Your task to perform on an android device: Open network settings Image 0: 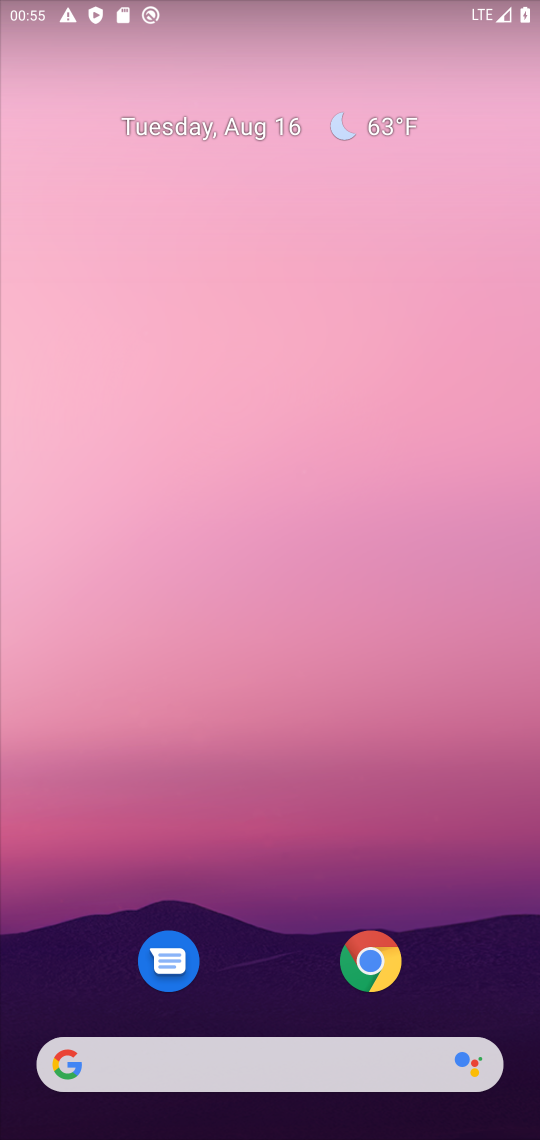
Step 0: press home button
Your task to perform on an android device: Open network settings Image 1: 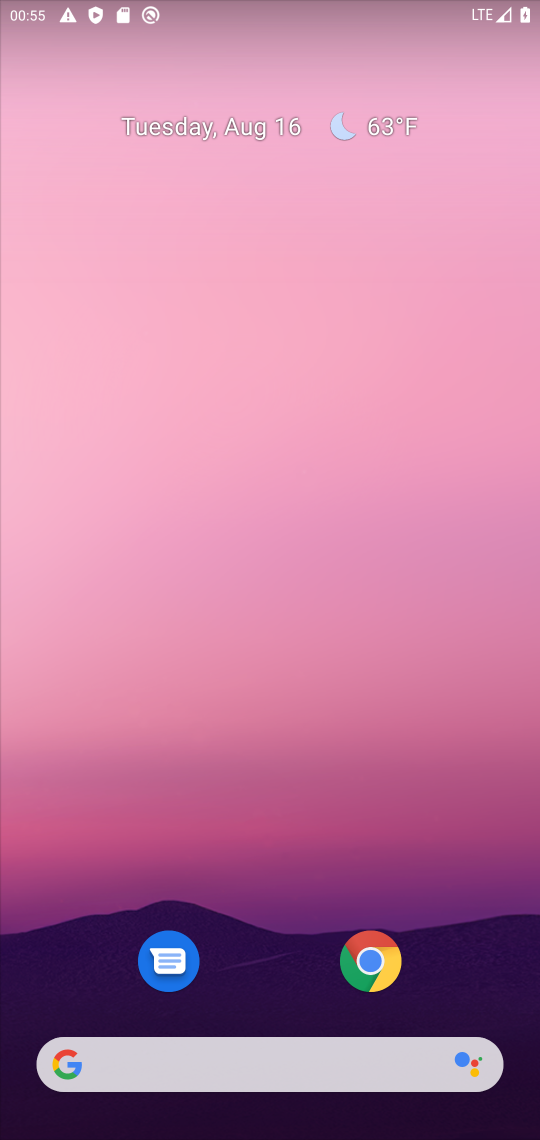
Step 1: drag from (247, 1004) to (271, 355)
Your task to perform on an android device: Open network settings Image 2: 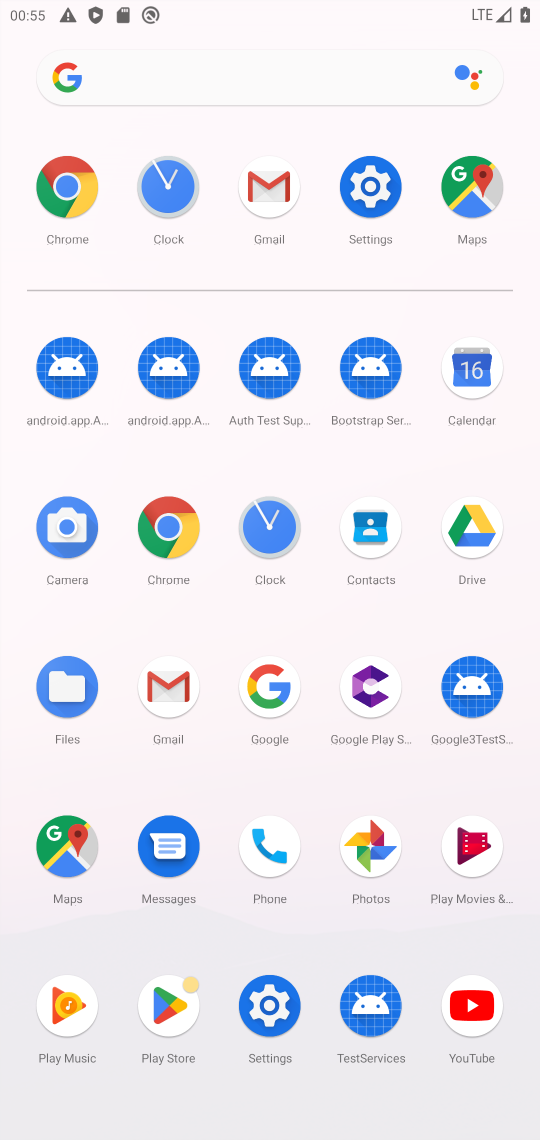
Step 2: click (393, 173)
Your task to perform on an android device: Open network settings Image 3: 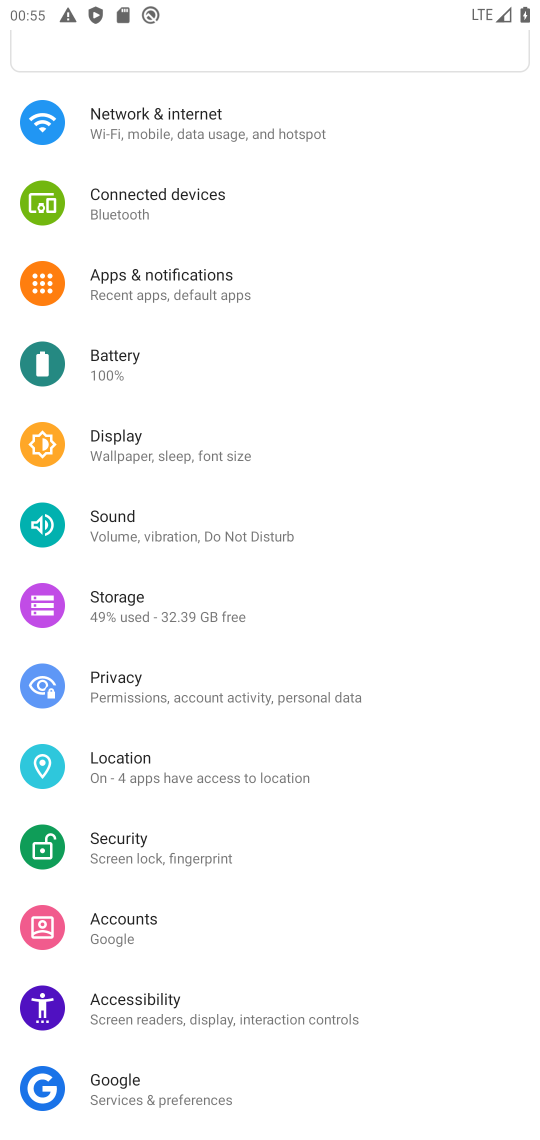
Step 3: drag from (185, 170) to (174, 1014)
Your task to perform on an android device: Open network settings Image 4: 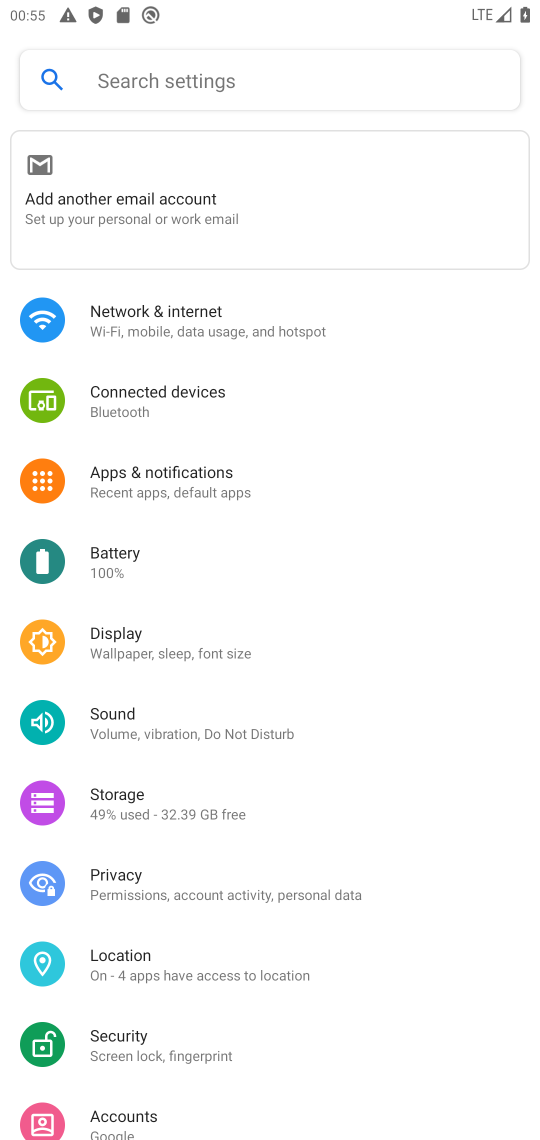
Step 4: click (168, 314)
Your task to perform on an android device: Open network settings Image 5: 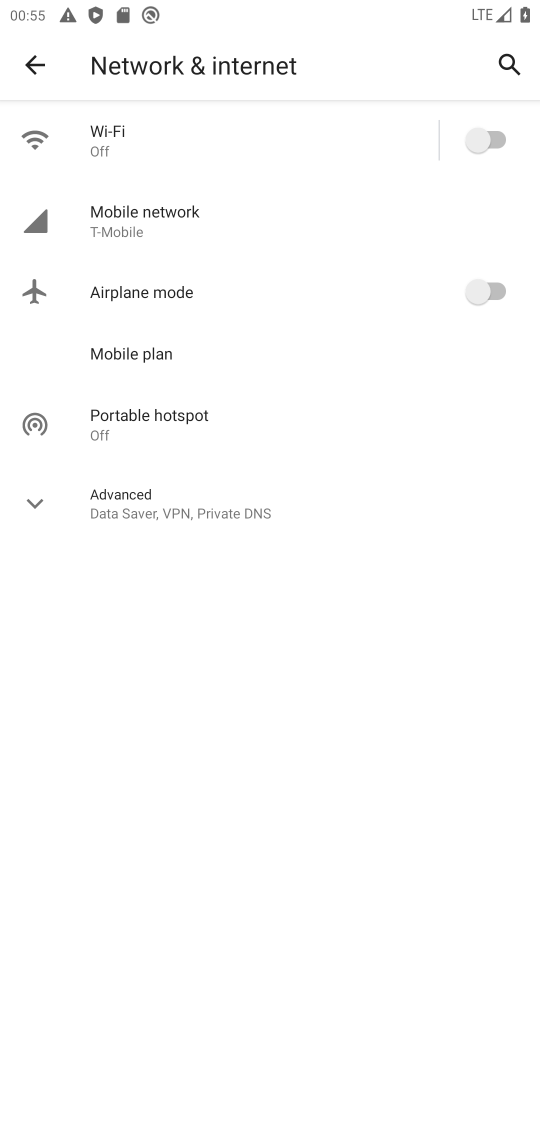
Step 5: task complete